Your task to perform on an android device: Do I have any events tomorrow? Image 0: 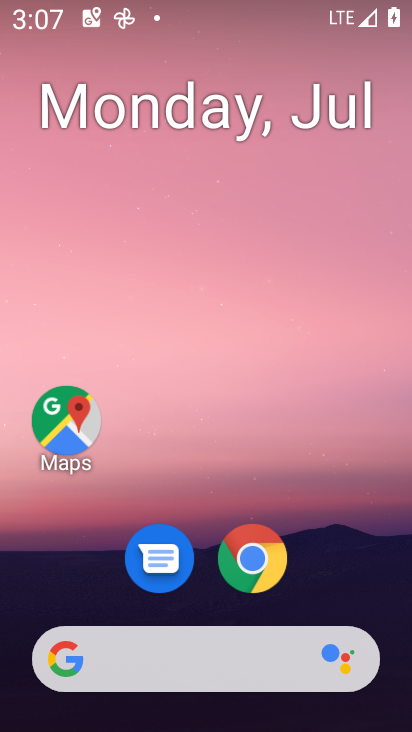
Step 0: drag from (341, 568) to (318, 73)
Your task to perform on an android device: Do I have any events tomorrow? Image 1: 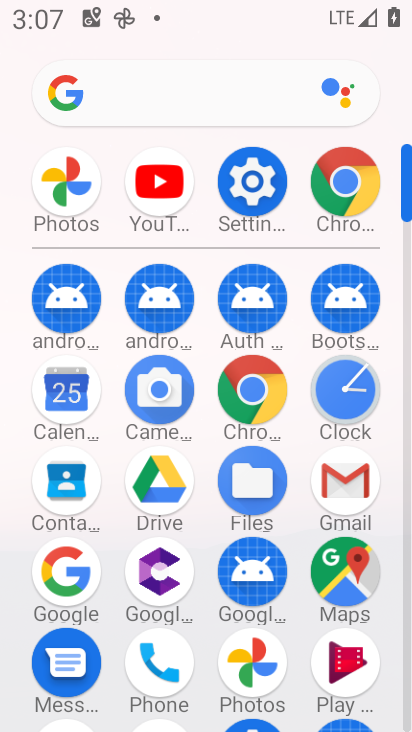
Step 1: click (58, 419)
Your task to perform on an android device: Do I have any events tomorrow? Image 2: 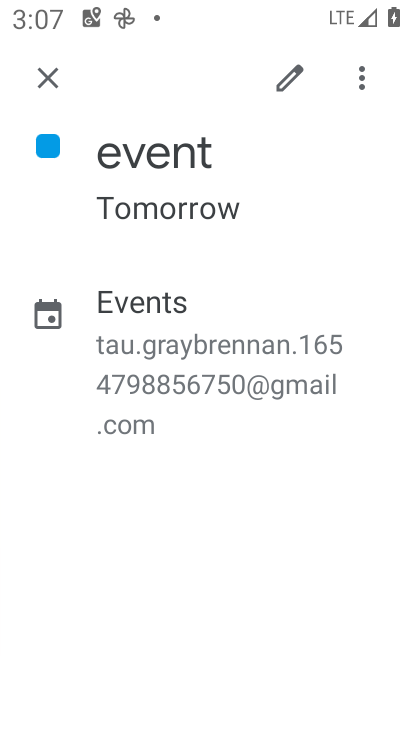
Step 2: press back button
Your task to perform on an android device: Do I have any events tomorrow? Image 3: 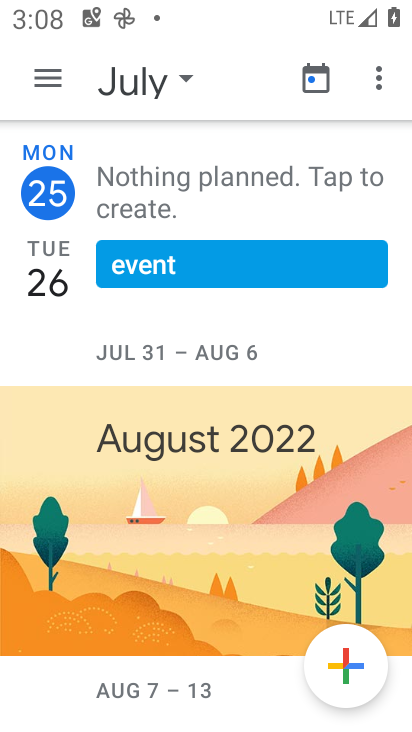
Step 3: click (189, 257)
Your task to perform on an android device: Do I have any events tomorrow? Image 4: 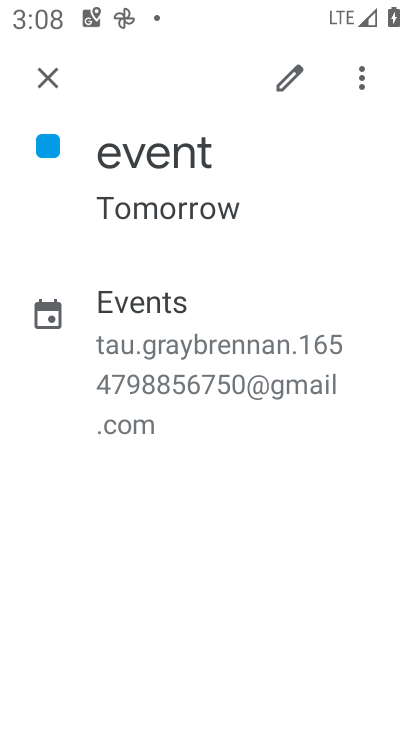
Step 4: task complete